Your task to perform on an android device: Open ESPN.com Image 0: 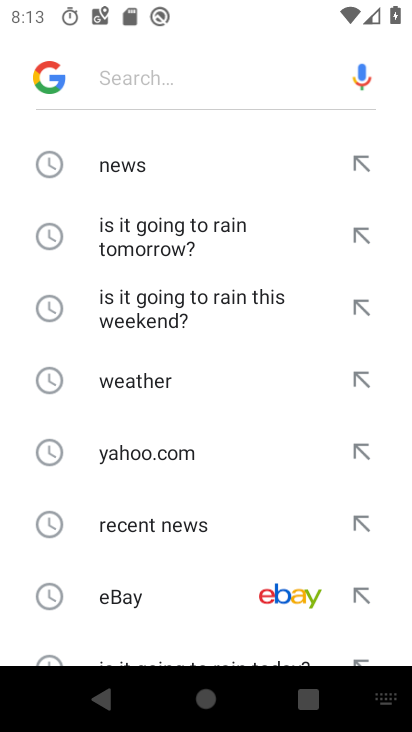
Step 0: press home button
Your task to perform on an android device: Open ESPN.com Image 1: 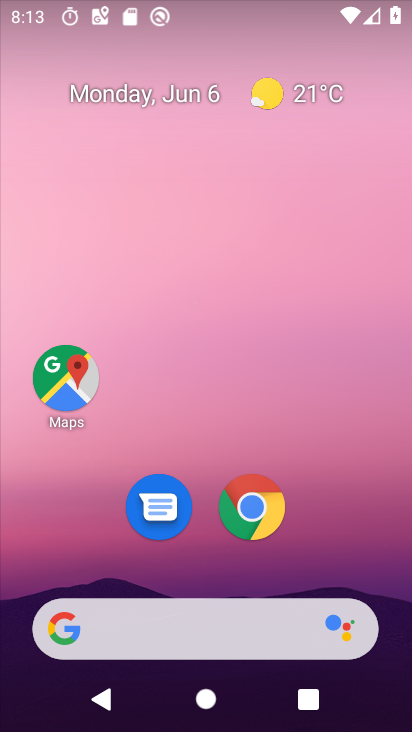
Step 1: click (265, 513)
Your task to perform on an android device: Open ESPN.com Image 2: 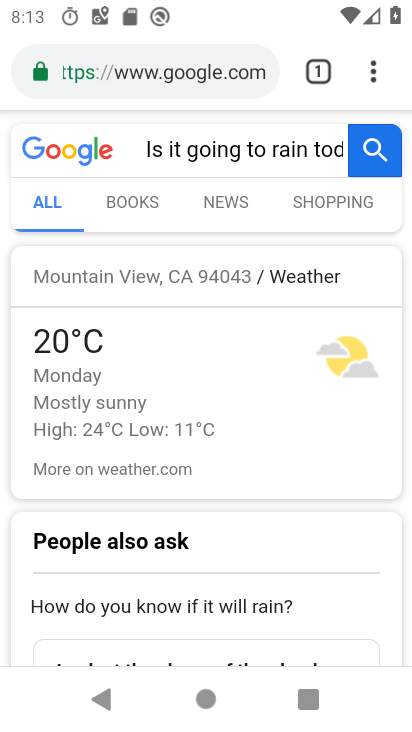
Step 2: drag from (369, 79) to (120, 123)
Your task to perform on an android device: Open ESPN.com Image 3: 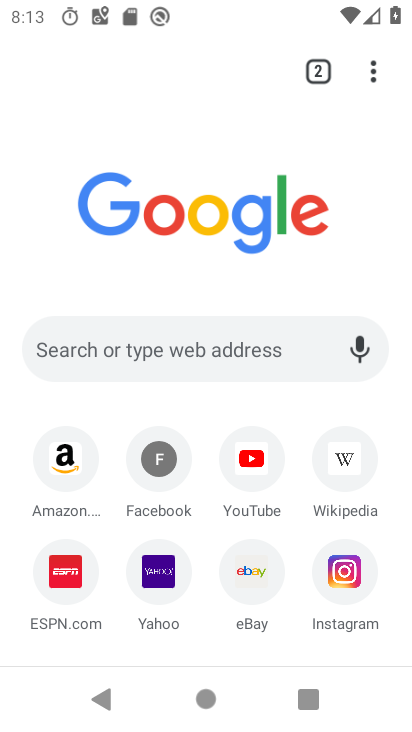
Step 3: click (59, 571)
Your task to perform on an android device: Open ESPN.com Image 4: 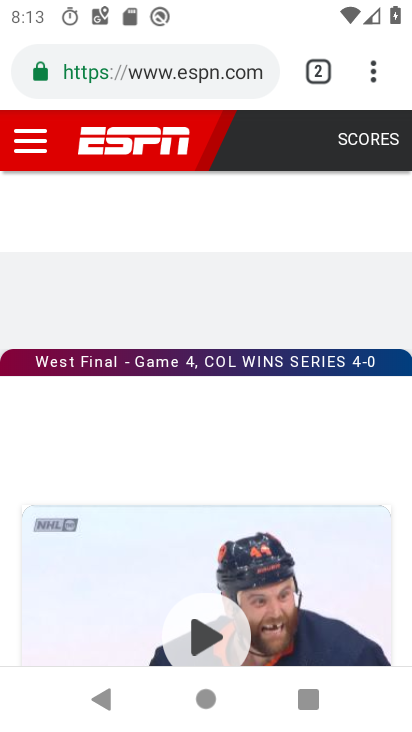
Step 4: task complete